Your task to perform on an android device: Open battery settings Image 0: 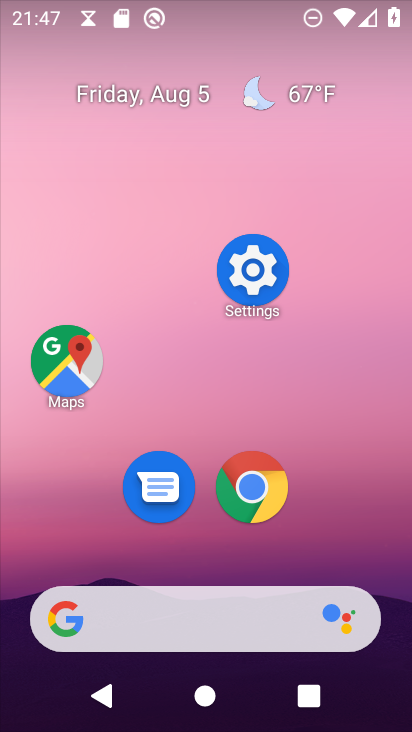
Step 0: click (236, 267)
Your task to perform on an android device: Open battery settings Image 1: 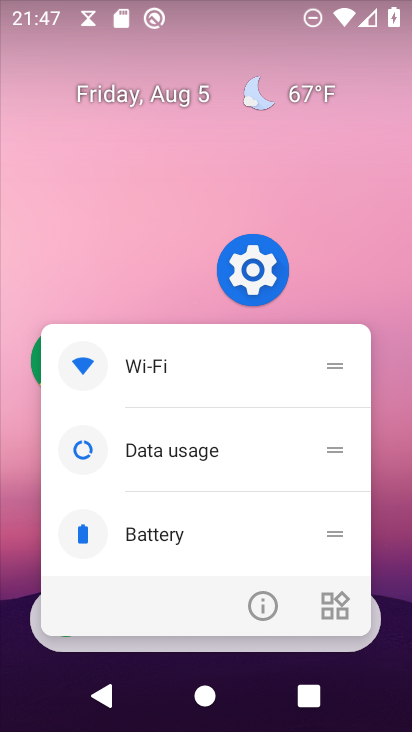
Step 1: click (263, 281)
Your task to perform on an android device: Open battery settings Image 2: 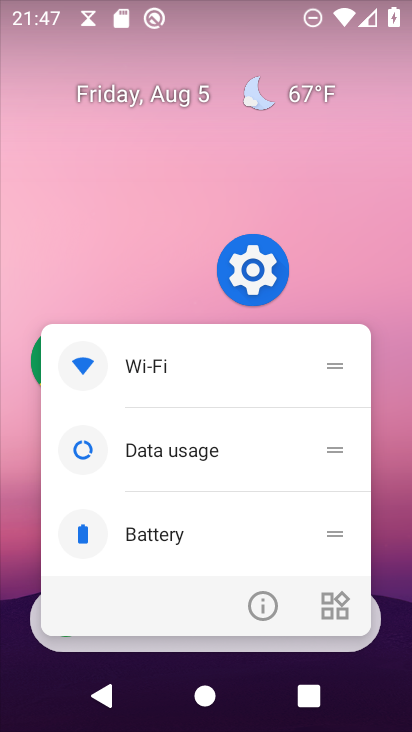
Step 2: click (257, 265)
Your task to perform on an android device: Open battery settings Image 3: 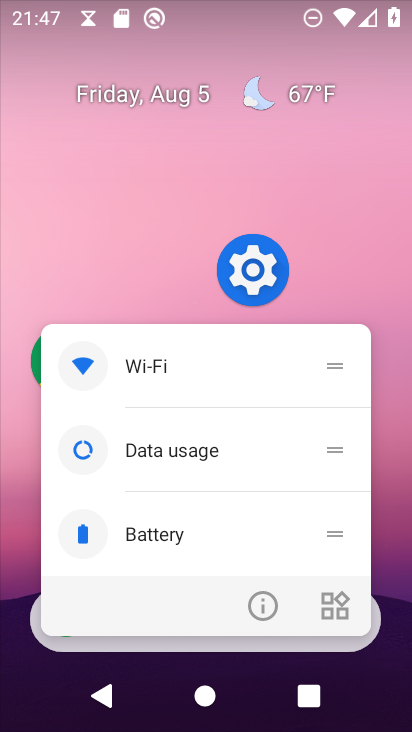
Step 3: click (251, 266)
Your task to perform on an android device: Open battery settings Image 4: 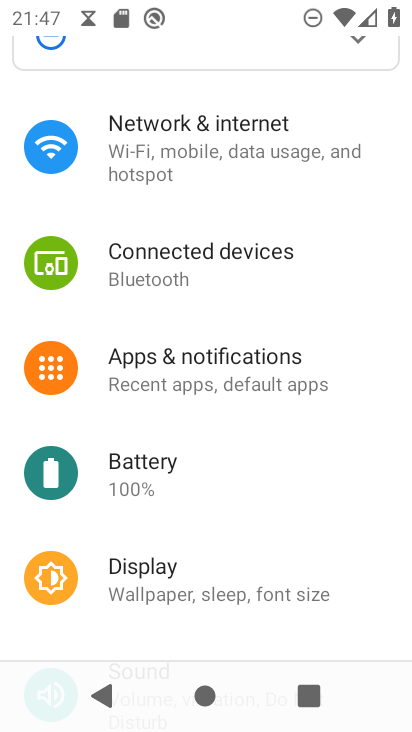
Step 4: click (165, 464)
Your task to perform on an android device: Open battery settings Image 5: 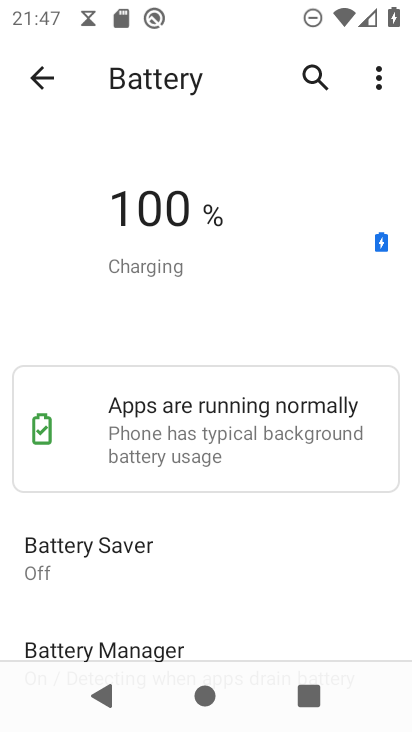
Step 5: task complete